Your task to perform on an android device: Empty the shopping cart on newegg. Search for "beats solo 3" on newegg, select the first entry, add it to the cart, then select checkout. Image 0: 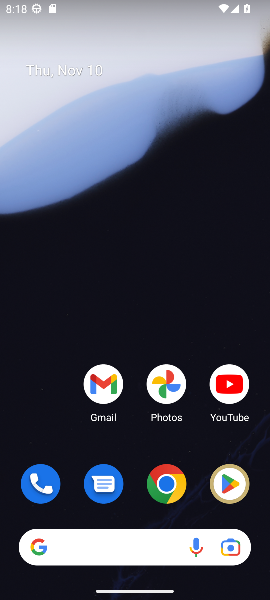
Step 0: click (170, 489)
Your task to perform on an android device: Empty the shopping cart on newegg. Search for "beats solo 3" on newegg, select the first entry, add it to the cart, then select checkout. Image 1: 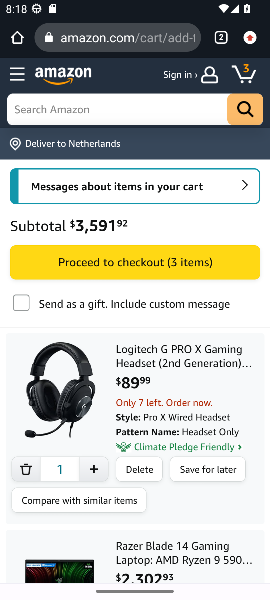
Step 1: click (85, 42)
Your task to perform on an android device: Empty the shopping cart on newegg. Search for "beats solo 3" on newegg, select the first entry, add it to the cart, then select checkout. Image 2: 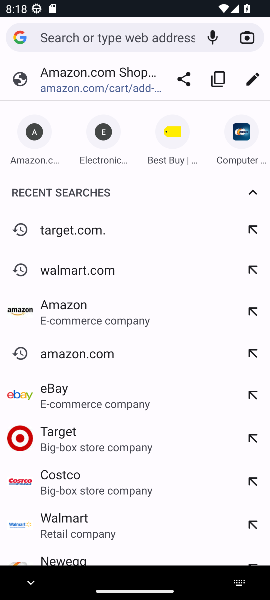
Step 2: type "newegg.com"
Your task to perform on an android device: Empty the shopping cart on newegg. Search for "beats solo 3" on newegg, select the first entry, add it to the cart, then select checkout. Image 3: 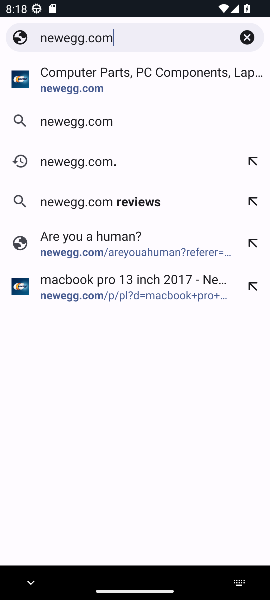
Step 3: click (82, 80)
Your task to perform on an android device: Empty the shopping cart on newegg. Search for "beats solo 3" on newegg, select the first entry, add it to the cart, then select checkout. Image 4: 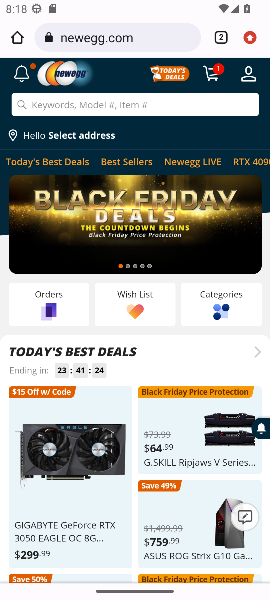
Step 4: click (216, 75)
Your task to perform on an android device: Empty the shopping cart on newegg. Search for "beats solo 3" on newegg, select the first entry, add it to the cart, then select checkout. Image 5: 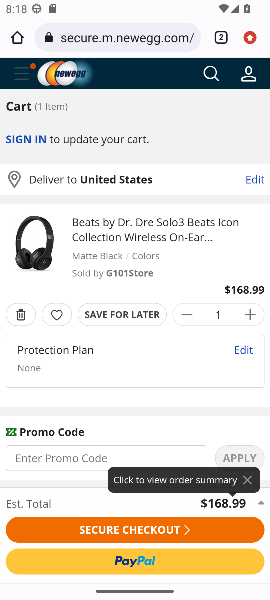
Step 5: click (22, 321)
Your task to perform on an android device: Empty the shopping cart on newegg. Search for "beats solo 3" on newegg, select the first entry, add it to the cart, then select checkout. Image 6: 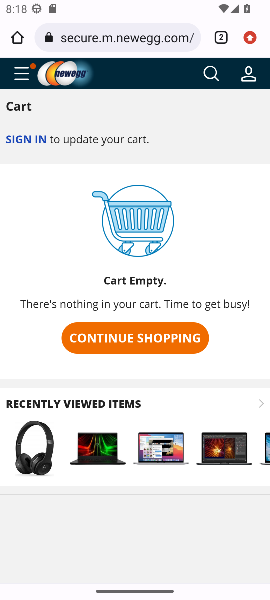
Step 6: click (208, 77)
Your task to perform on an android device: Empty the shopping cart on newegg. Search for "beats solo 3" on newegg, select the first entry, add it to the cart, then select checkout. Image 7: 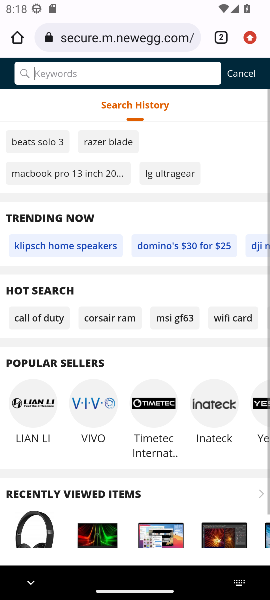
Step 7: type "beats solo 3"
Your task to perform on an android device: Empty the shopping cart on newegg. Search for "beats solo 3" on newegg, select the first entry, add it to the cart, then select checkout. Image 8: 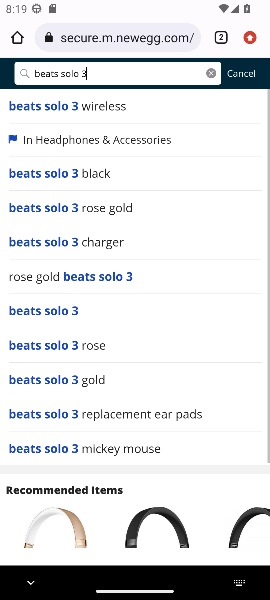
Step 8: click (41, 311)
Your task to perform on an android device: Empty the shopping cart on newegg. Search for "beats solo 3" on newegg, select the first entry, add it to the cart, then select checkout. Image 9: 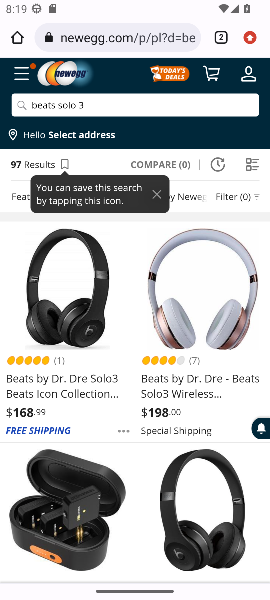
Step 9: click (66, 348)
Your task to perform on an android device: Empty the shopping cart on newegg. Search for "beats solo 3" on newegg, select the first entry, add it to the cart, then select checkout. Image 10: 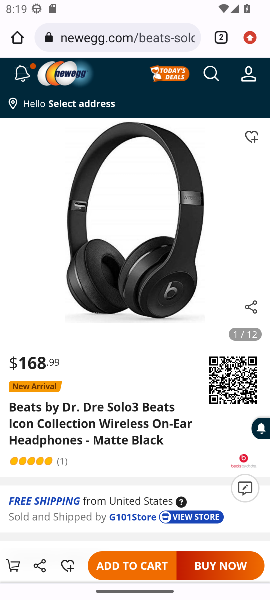
Step 10: click (126, 559)
Your task to perform on an android device: Empty the shopping cart on newegg. Search for "beats solo 3" on newegg, select the first entry, add it to the cart, then select checkout. Image 11: 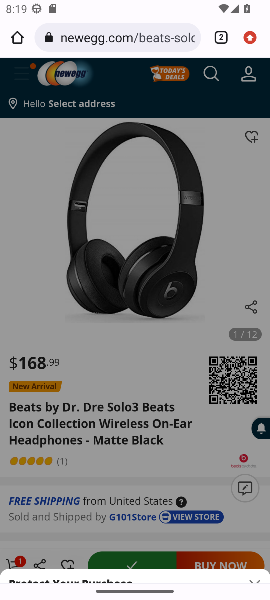
Step 11: click (20, 567)
Your task to perform on an android device: Empty the shopping cart on newegg. Search for "beats solo 3" on newegg, select the first entry, add it to the cart, then select checkout. Image 12: 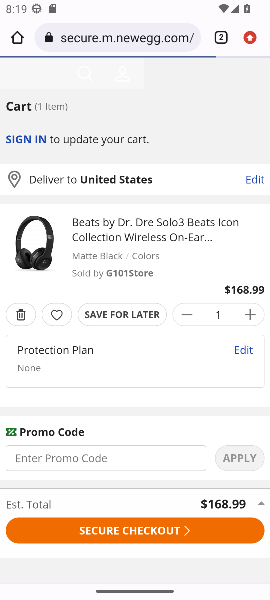
Step 12: click (20, 567)
Your task to perform on an android device: Empty the shopping cart on newegg. Search for "beats solo 3" on newegg, select the first entry, add it to the cart, then select checkout. Image 13: 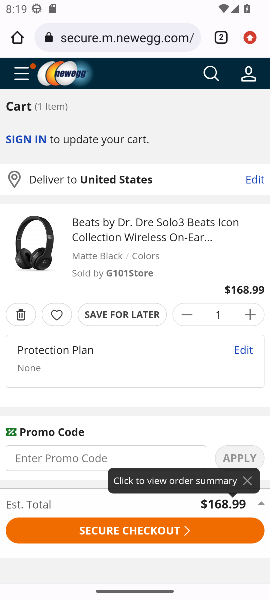
Step 13: click (124, 534)
Your task to perform on an android device: Empty the shopping cart on newegg. Search for "beats solo 3" on newegg, select the first entry, add it to the cart, then select checkout. Image 14: 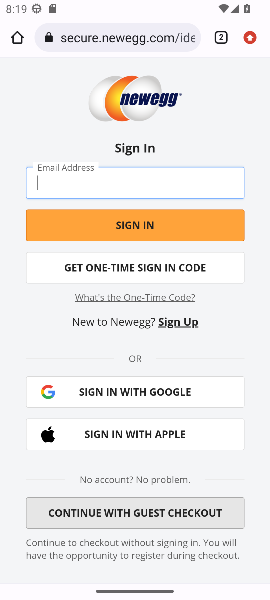
Step 14: task complete